Your task to perform on an android device: turn on bluetooth scan Image 0: 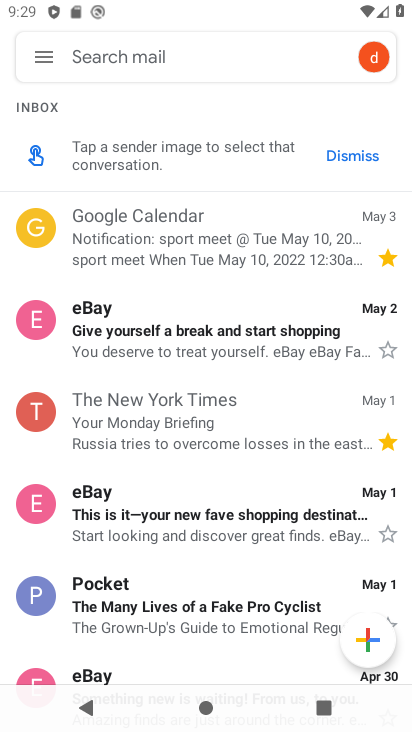
Step 0: press home button
Your task to perform on an android device: turn on bluetooth scan Image 1: 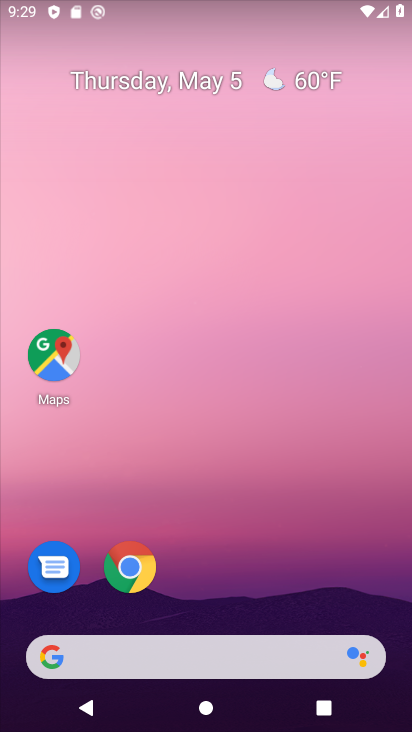
Step 1: drag from (213, 600) to (213, 54)
Your task to perform on an android device: turn on bluetooth scan Image 2: 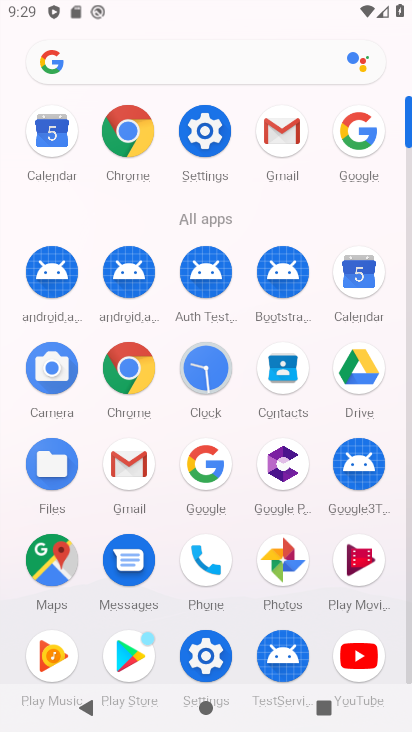
Step 2: click (202, 136)
Your task to perform on an android device: turn on bluetooth scan Image 3: 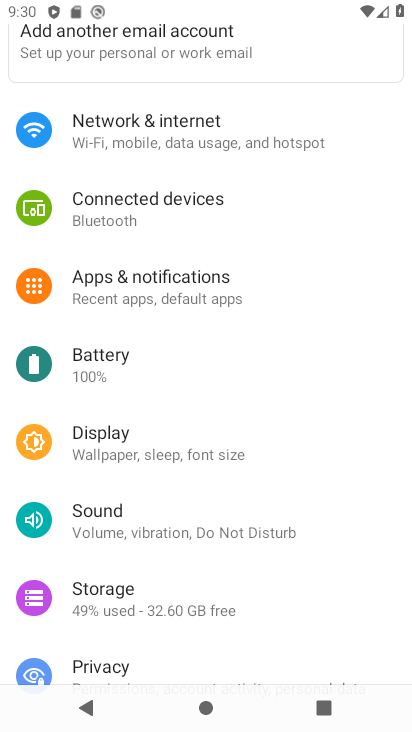
Step 3: drag from (156, 653) to (155, 417)
Your task to perform on an android device: turn on bluetooth scan Image 4: 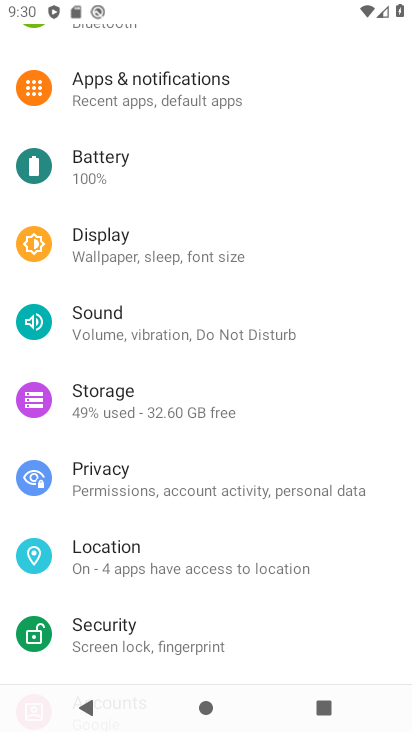
Step 4: click (116, 552)
Your task to perform on an android device: turn on bluetooth scan Image 5: 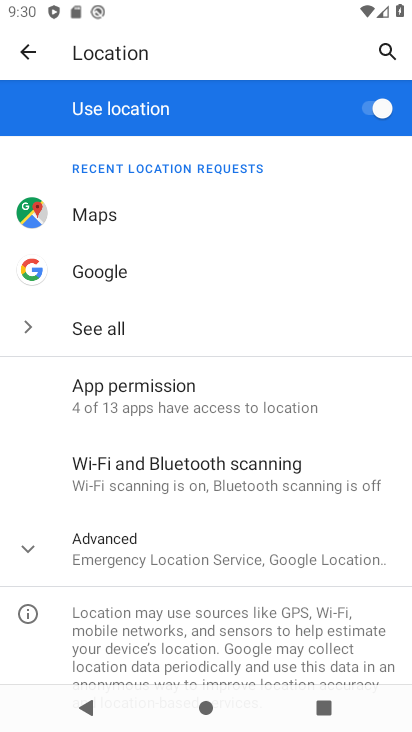
Step 5: click (152, 478)
Your task to perform on an android device: turn on bluetooth scan Image 6: 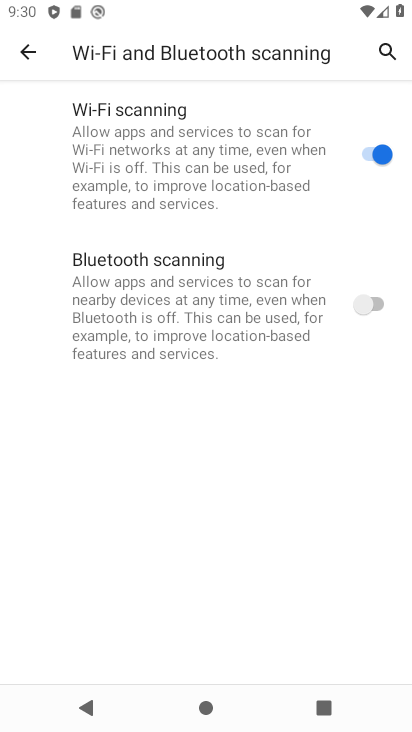
Step 6: click (373, 310)
Your task to perform on an android device: turn on bluetooth scan Image 7: 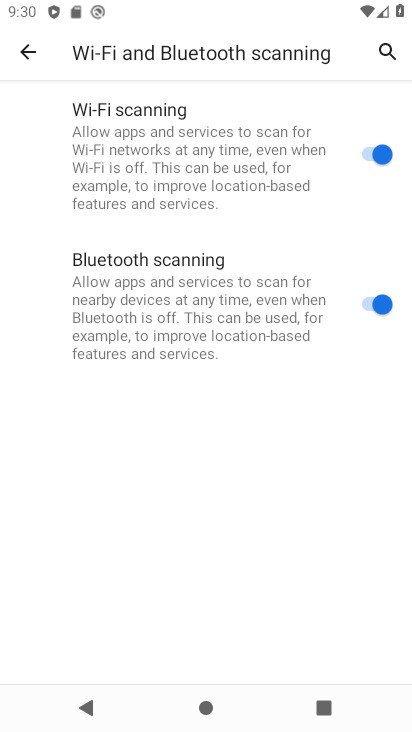
Step 7: task complete